Your task to perform on an android device: search for starred emails in the gmail app Image 0: 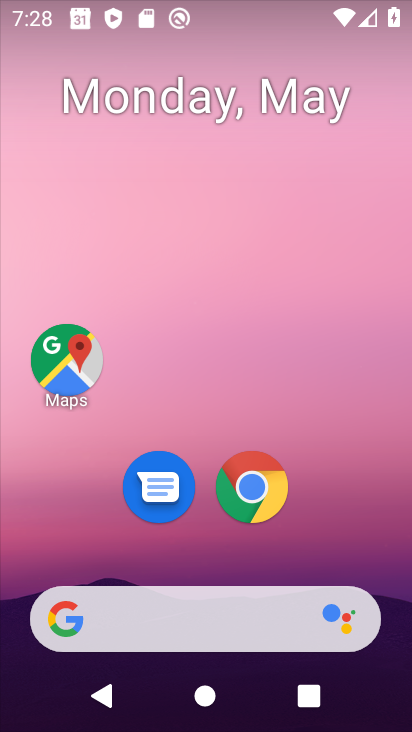
Step 0: drag from (261, 655) to (282, 225)
Your task to perform on an android device: search for starred emails in the gmail app Image 1: 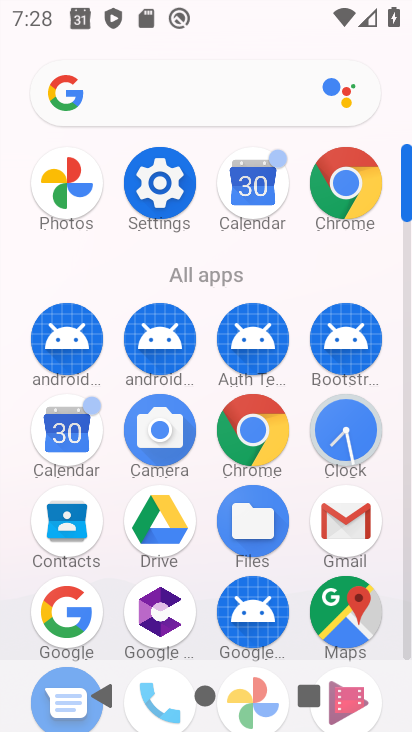
Step 1: click (351, 511)
Your task to perform on an android device: search for starred emails in the gmail app Image 2: 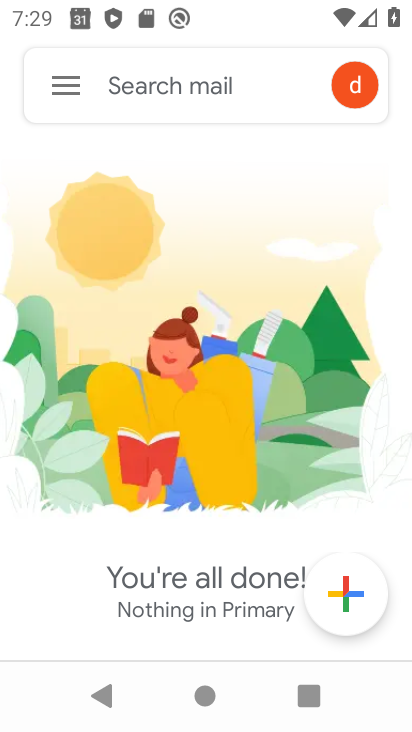
Step 2: click (69, 88)
Your task to perform on an android device: search for starred emails in the gmail app Image 3: 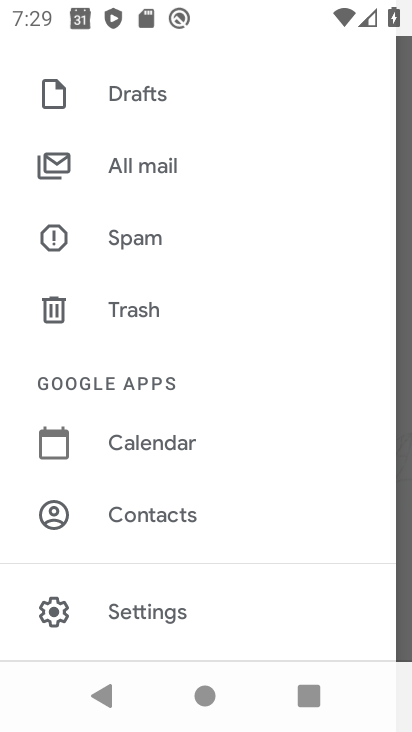
Step 3: drag from (158, 144) to (202, 412)
Your task to perform on an android device: search for starred emails in the gmail app Image 4: 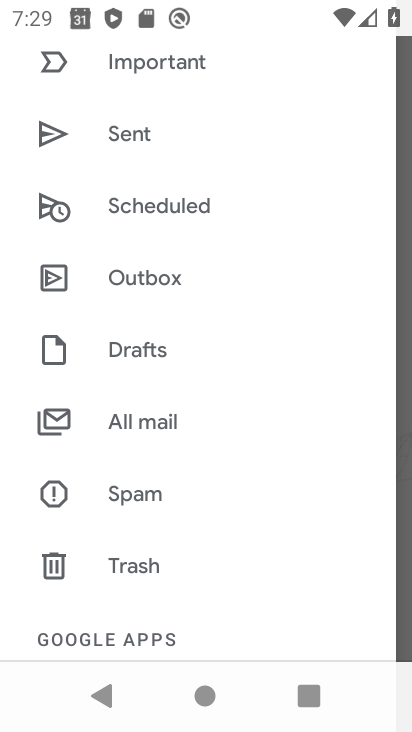
Step 4: drag from (187, 197) to (196, 249)
Your task to perform on an android device: search for starred emails in the gmail app Image 5: 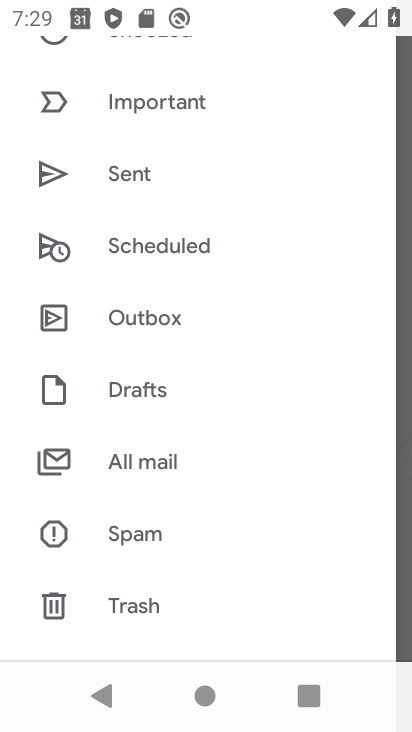
Step 5: drag from (122, 113) to (148, 153)
Your task to perform on an android device: search for starred emails in the gmail app Image 6: 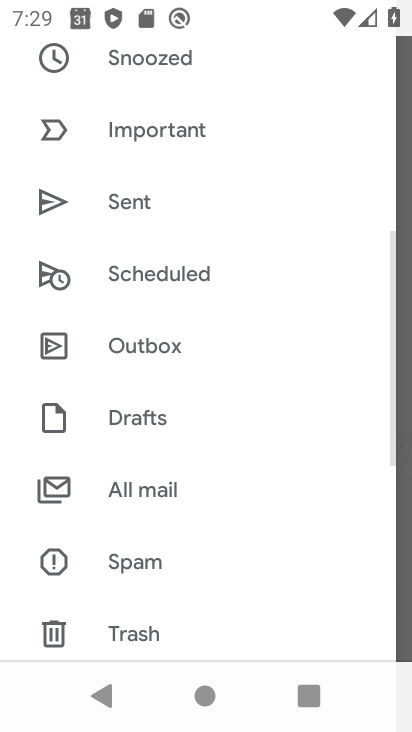
Step 6: drag from (148, 153) to (151, 231)
Your task to perform on an android device: search for starred emails in the gmail app Image 7: 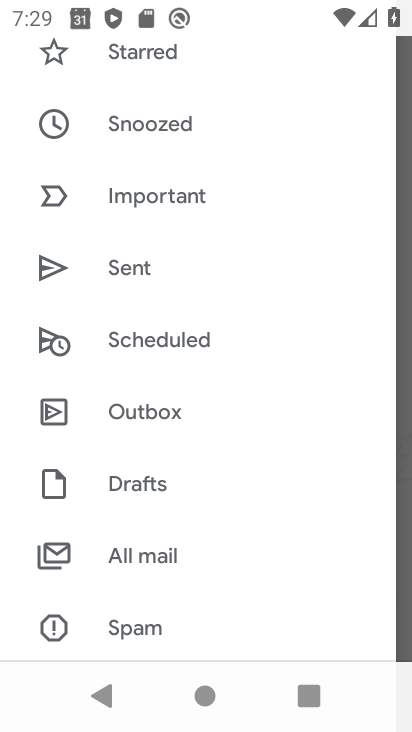
Step 7: click (139, 58)
Your task to perform on an android device: search for starred emails in the gmail app Image 8: 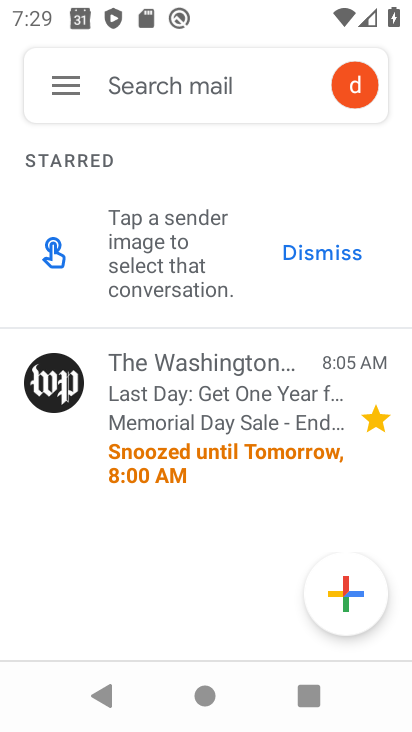
Step 8: click (336, 252)
Your task to perform on an android device: search for starred emails in the gmail app Image 9: 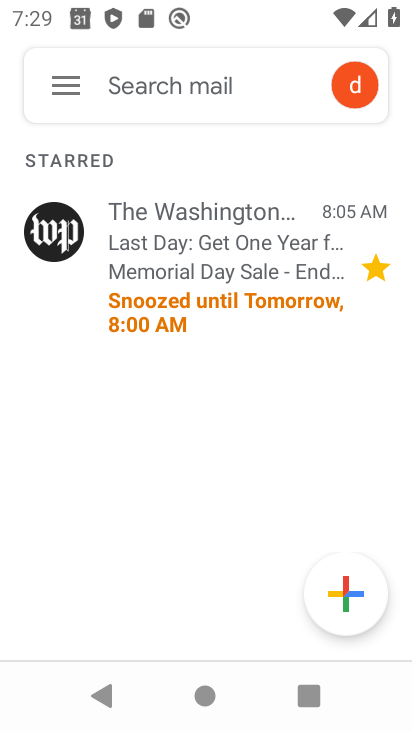
Step 9: task complete